Your task to perform on an android device: Open settings on Google Maps Image 0: 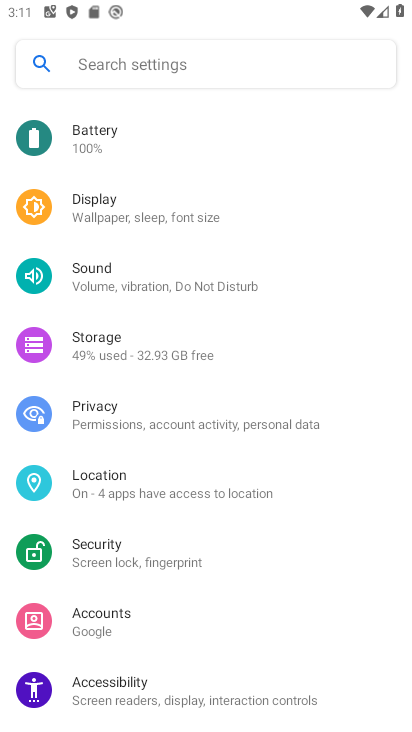
Step 0: press home button
Your task to perform on an android device: Open settings on Google Maps Image 1: 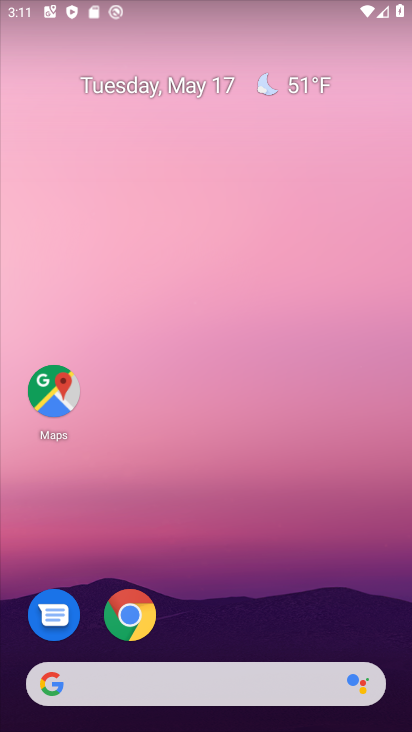
Step 1: click (51, 379)
Your task to perform on an android device: Open settings on Google Maps Image 2: 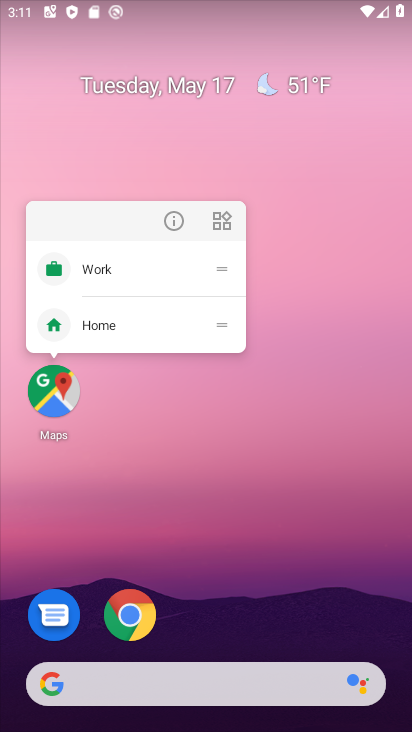
Step 2: click (57, 386)
Your task to perform on an android device: Open settings on Google Maps Image 3: 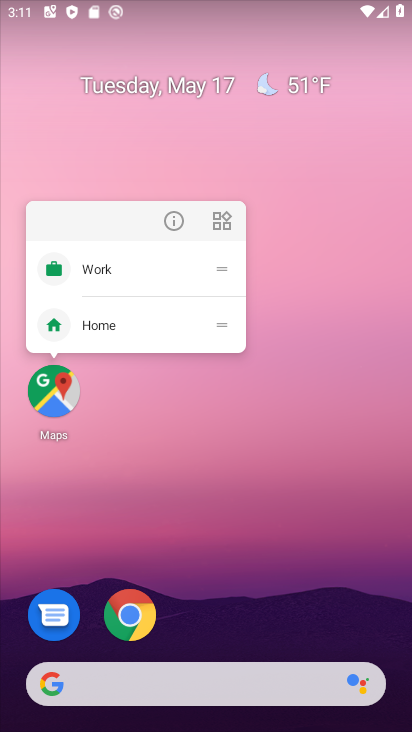
Step 3: click (51, 395)
Your task to perform on an android device: Open settings on Google Maps Image 4: 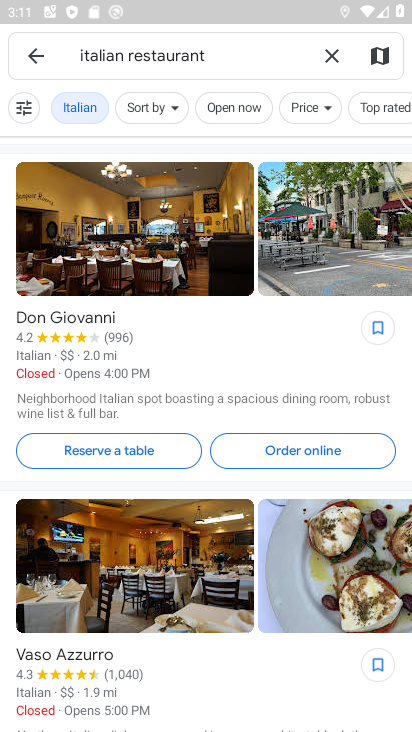
Step 4: click (35, 50)
Your task to perform on an android device: Open settings on Google Maps Image 5: 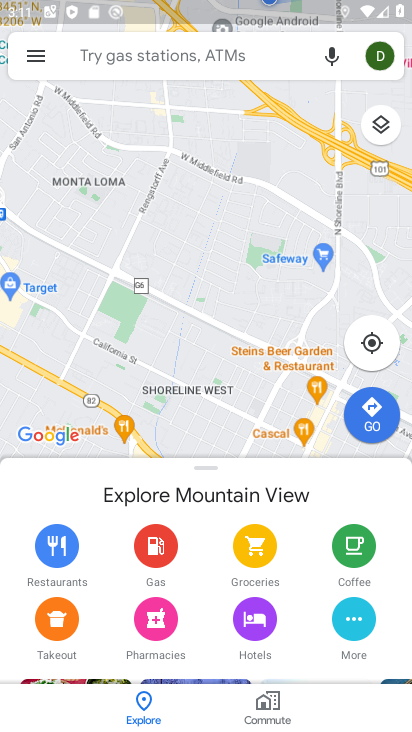
Step 5: click (31, 53)
Your task to perform on an android device: Open settings on Google Maps Image 6: 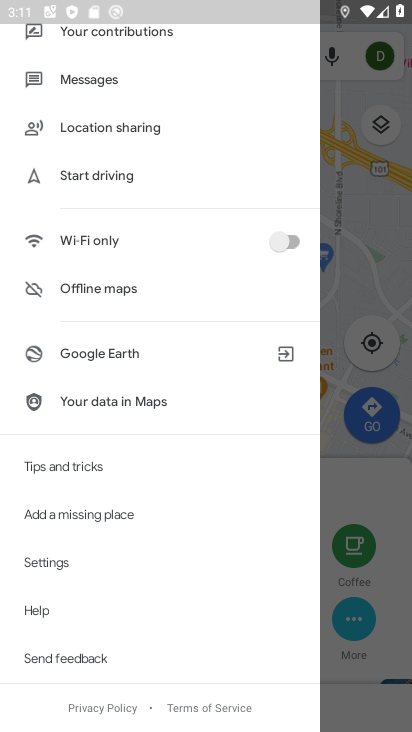
Step 6: click (70, 557)
Your task to perform on an android device: Open settings on Google Maps Image 7: 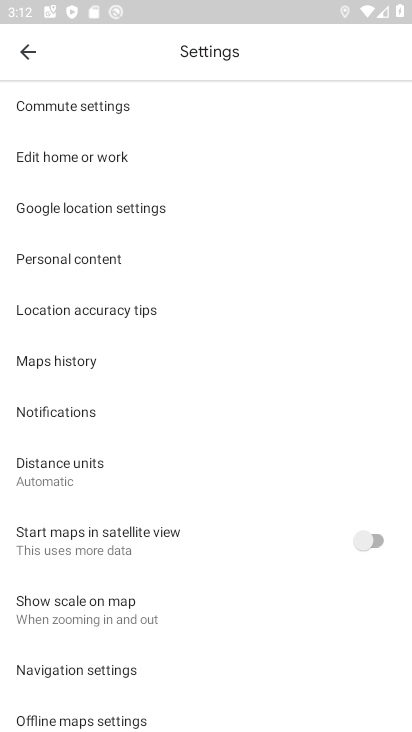
Step 7: drag from (178, 616) to (241, 227)
Your task to perform on an android device: Open settings on Google Maps Image 8: 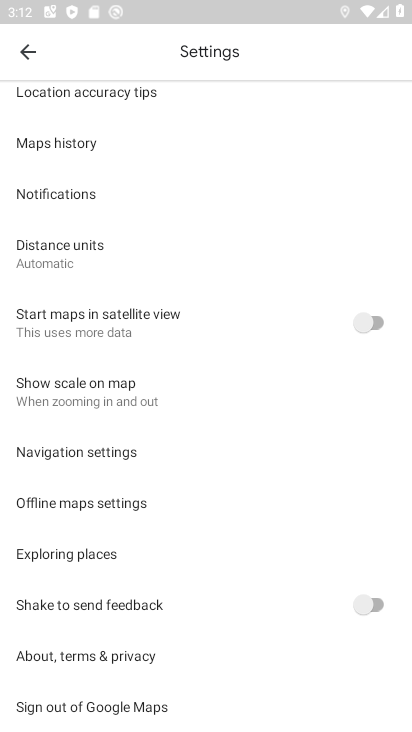
Step 8: drag from (190, 646) to (223, 412)
Your task to perform on an android device: Open settings on Google Maps Image 9: 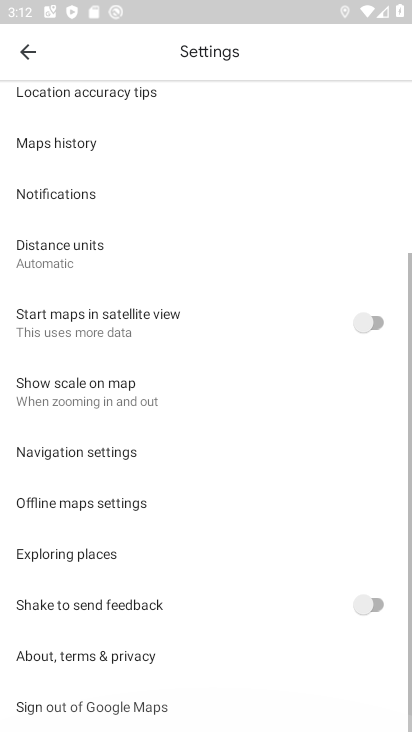
Step 9: click (231, 366)
Your task to perform on an android device: Open settings on Google Maps Image 10: 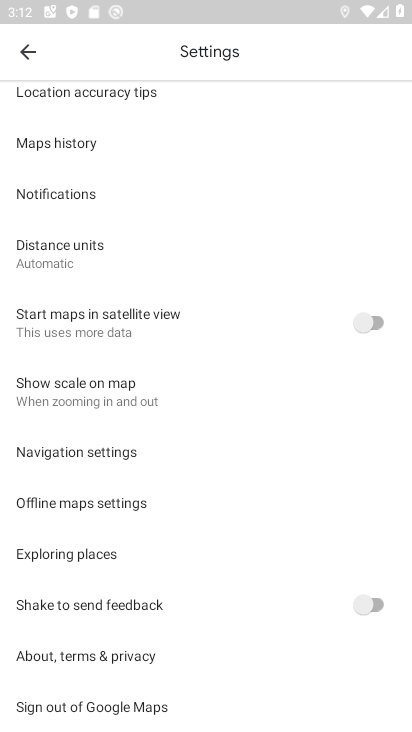
Step 10: task complete